Your task to perform on an android device: star an email in the gmail app Image 0: 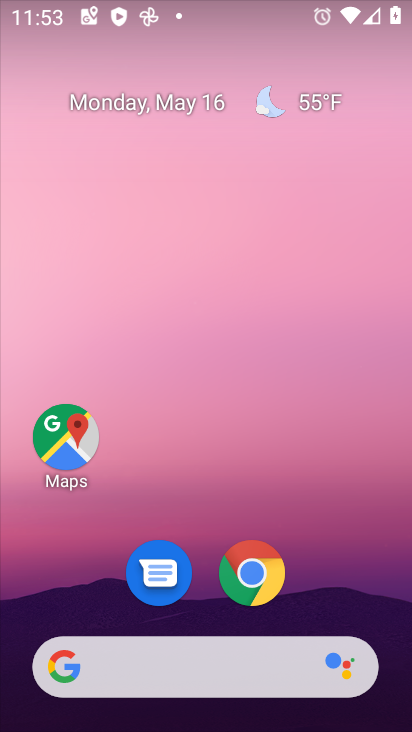
Step 0: drag from (367, 627) to (368, 232)
Your task to perform on an android device: star an email in the gmail app Image 1: 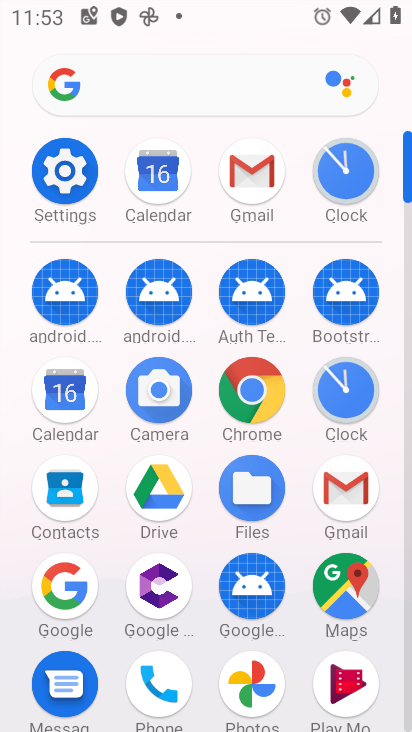
Step 1: click (357, 477)
Your task to perform on an android device: star an email in the gmail app Image 2: 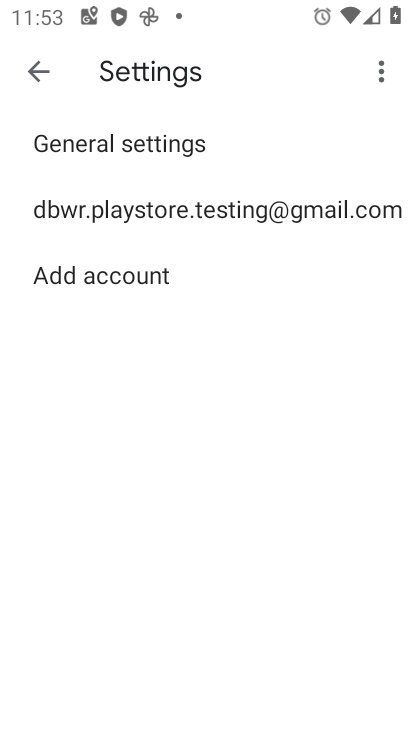
Step 2: click (41, 80)
Your task to perform on an android device: star an email in the gmail app Image 3: 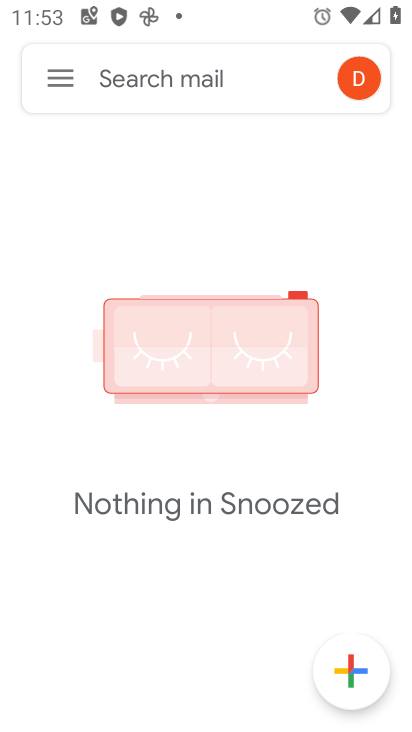
Step 3: click (58, 97)
Your task to perform on an android device: star an email in the gmail app Image 4: 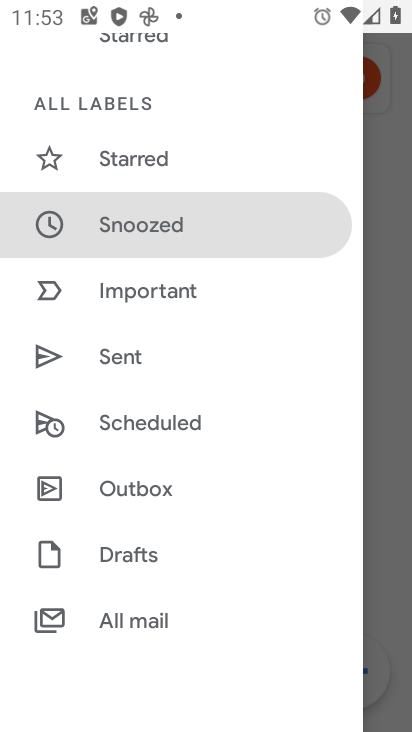
Step 4: click (192, 625)
Your task to perform on an android device: star an email in the gmail app Image 5: 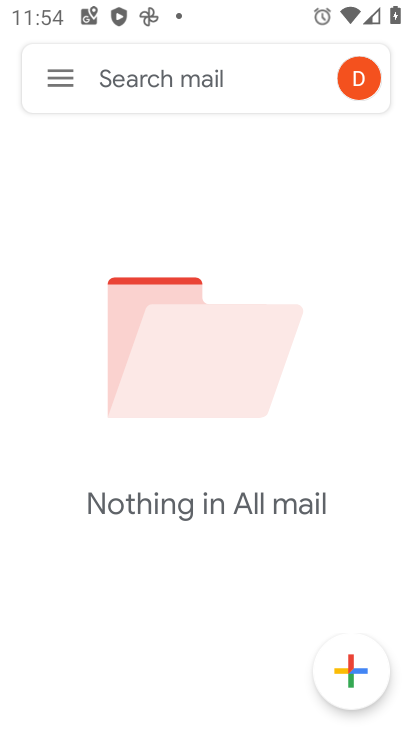
Step 5: task complete